Your task to perform on an android device: toggle improve location accuracy Image 0: 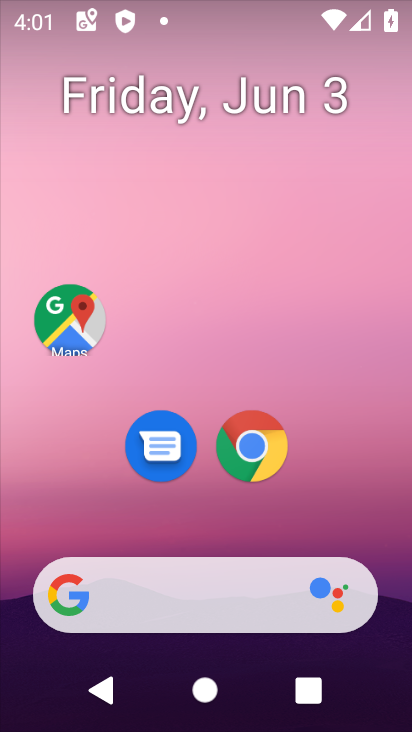
Step 0: task complete